Your task to perform on an android device: Go to display settings Image 0: 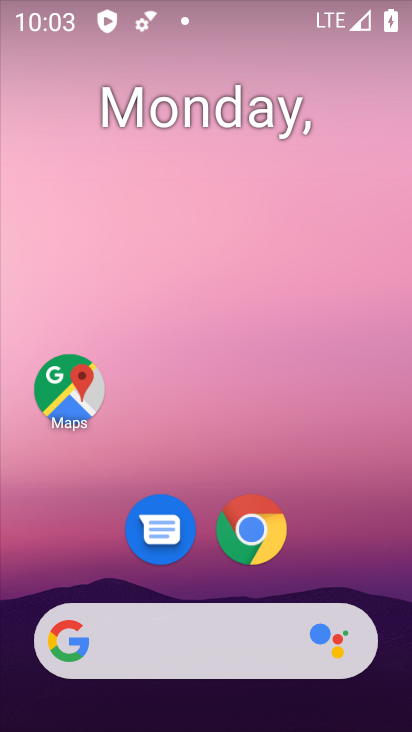
Step 0: drag from (44, 531) to (223, 209)
Your task to perform on an android device: Go to display settings Image 1: 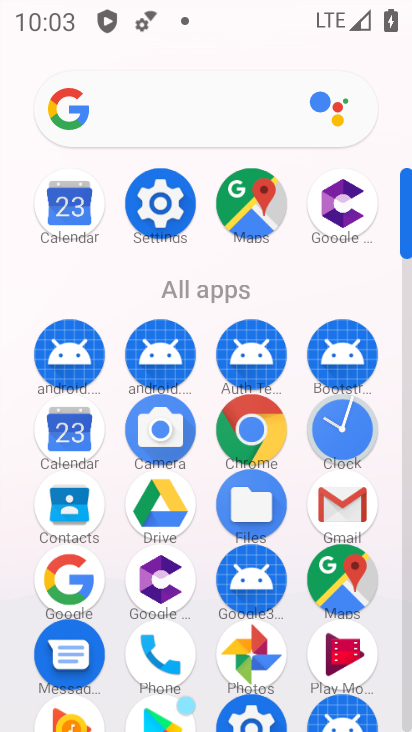
Step 1: click (172, 206)
Your task to perform on an android device: Go to display settings Image 2: 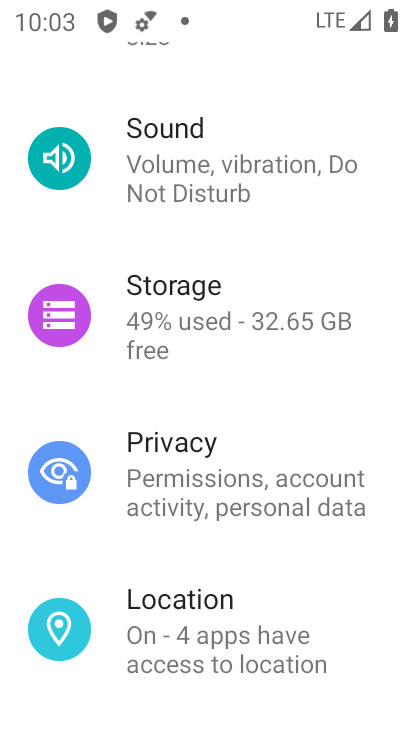
Step 2: drag from (84, 633) to (257, 59)
Your task to perform on an android device: Go to display settings Image 3: 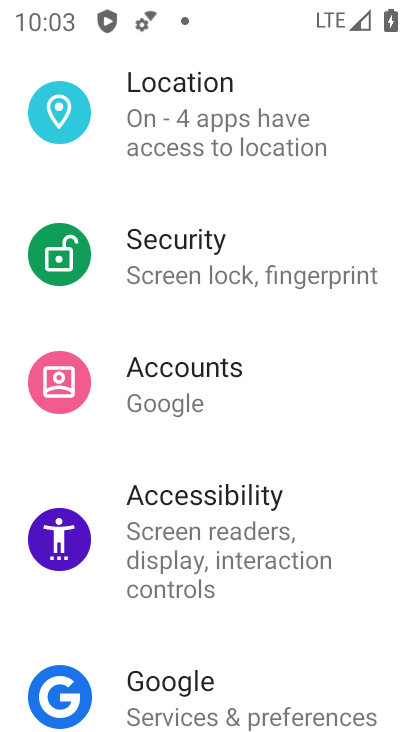
Step 3: drag from (224, 115) to (169, 602)
Your task to perform on an android device: Go to display settings Image 4: 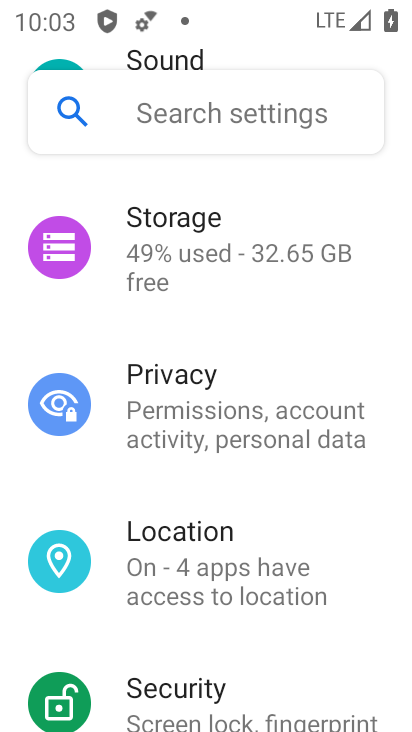
Step 4: drag from (194, 180) to (187, 540)
Your task to perform on an android device: Go to display settings Image 5: 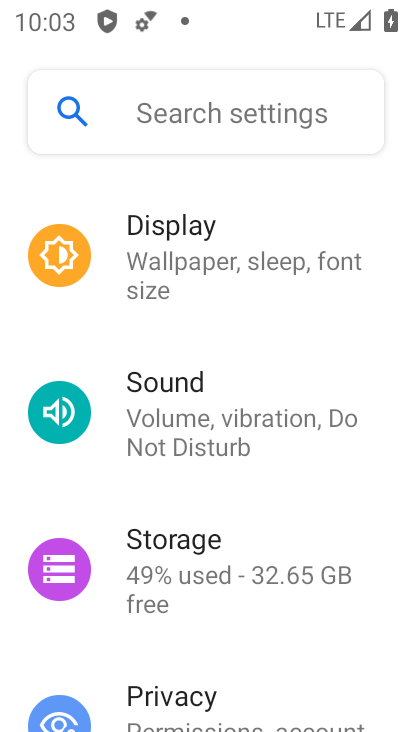
Step 5: drag from (243, 246) to (222, 624)
Your task to perform on an android device: Go to display settings Image 6: 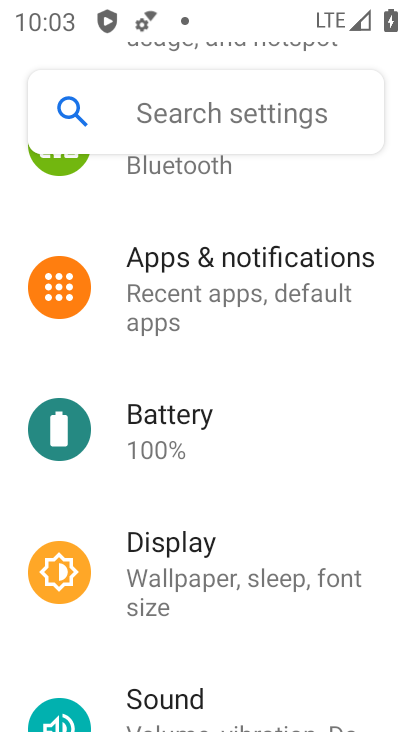
Step 6: click (158, 565)
Your task to perform on an android device: Go to display settings Image 7: 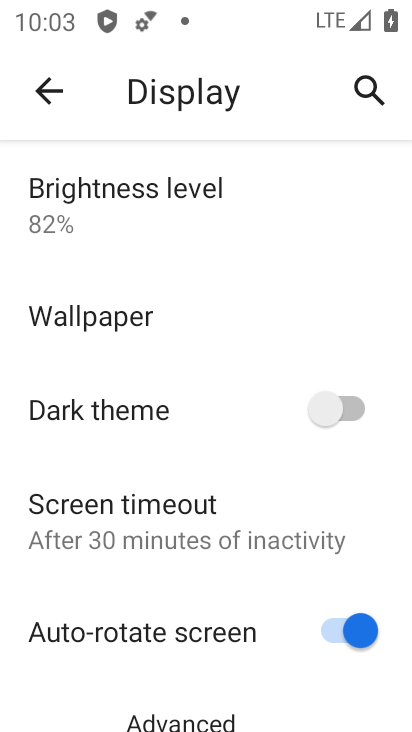
Step 7: task complete